Your task to perform on an android device: uninstall "Google Play Games" Image 0: 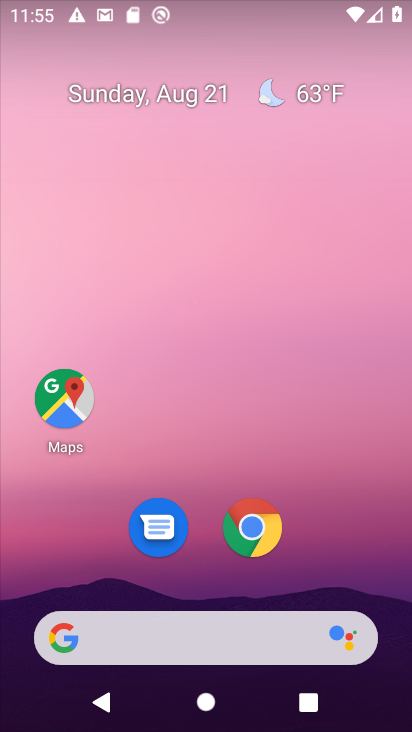
Step 0: drag from (168, 343) to (187, 114)
Your task to perform on an android device: uninstall "Google Play Games" Image 1: 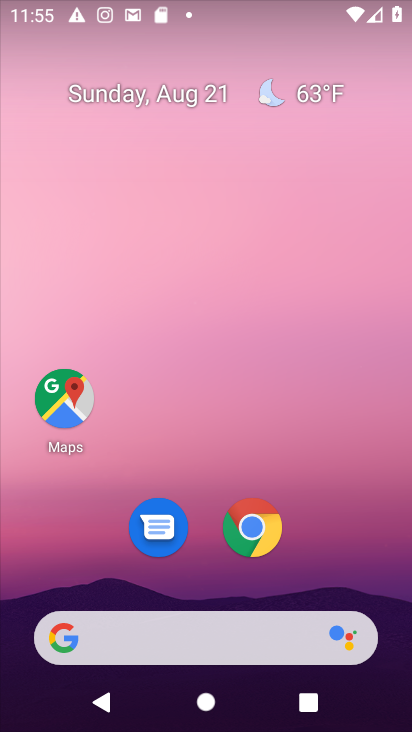
Step 1: drag from (233, 640) to (310, 1)
Your task to perform on an android device: uninstall "Google Play Games" Image 2: 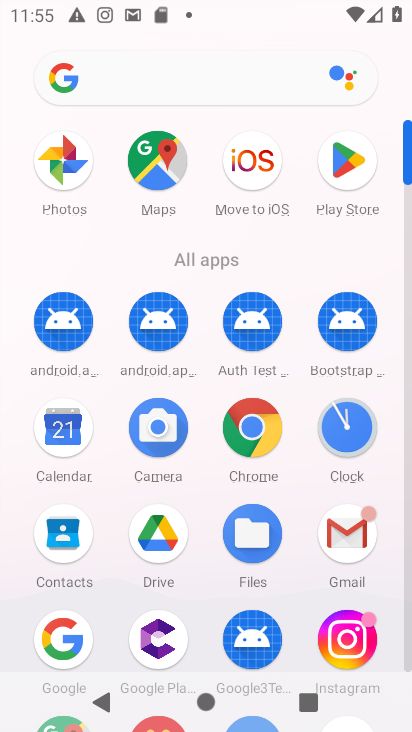
Step 2: click (354, 149)
Your task to perform on an android device: uninstall "Google Play Games" Image 3: 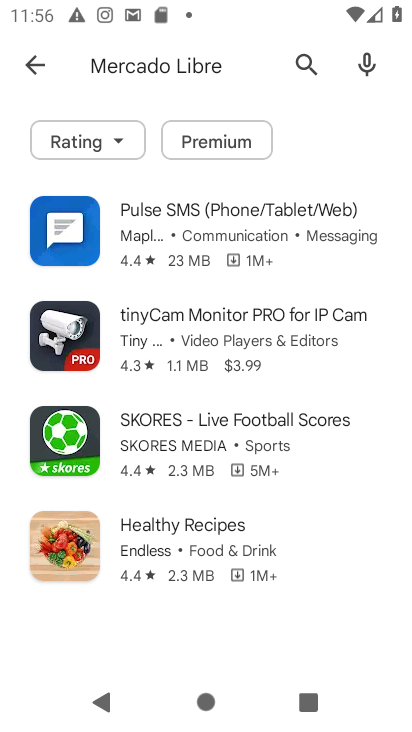
Step 3: press back button
Your task to perform on an android device: uninstall "Google Play Games" Image 4: 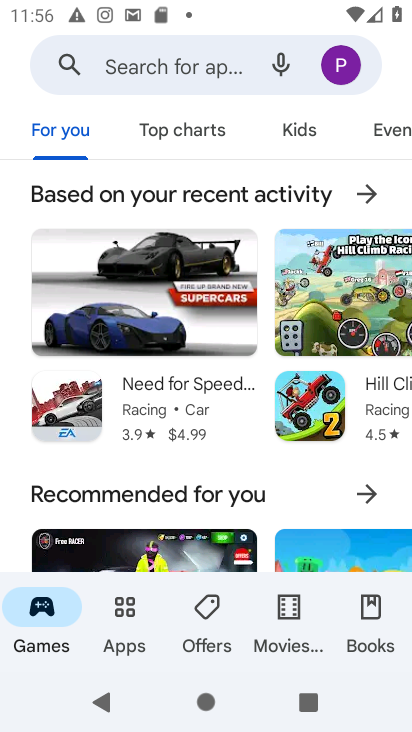
Step 4: click (139, 71)
Your task to perform on an android device: uninstall "Google Play Games" Image 5: 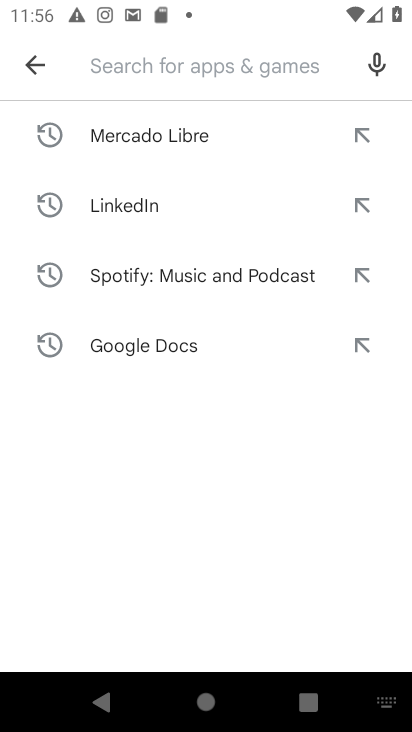
Step 5: type "Google Play Games"
Your task to perform on an android device: uninstall "Google Play Games" Image 6: 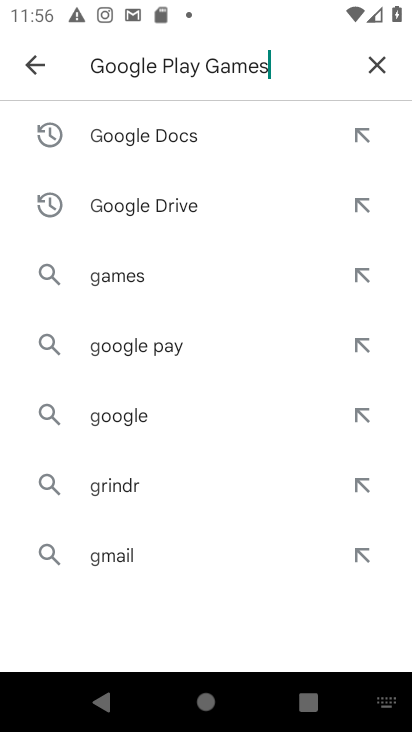
Step 6: press enter
Your task to perform on an android device: uninstall "Google Play Games" Image 7: 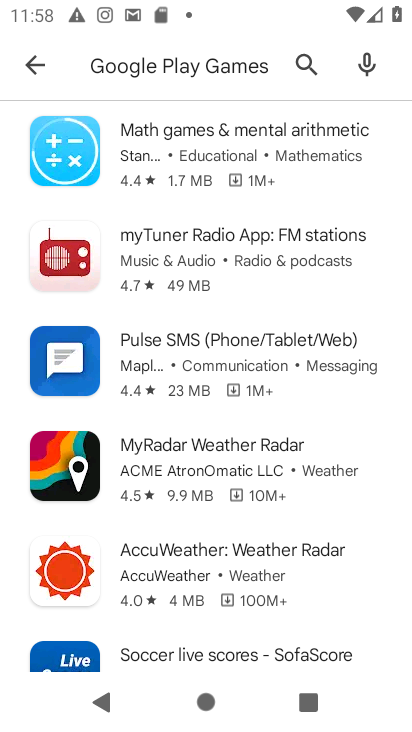
Step 7: task complete